Your task to perform on an android device: Turn off the flashlight Image 0: 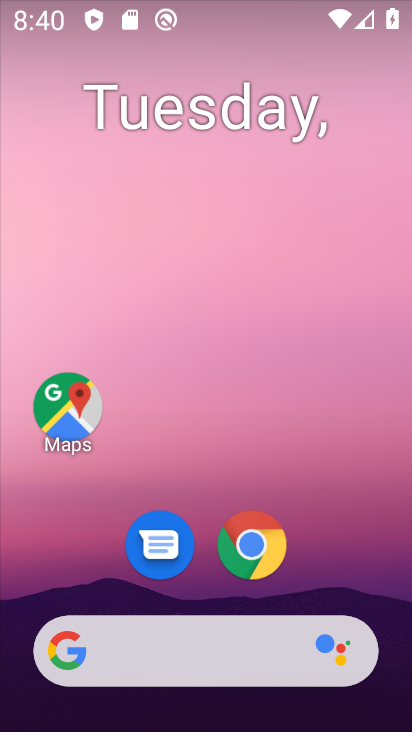
Step 0: drag from (330, 591) to (252, 55)
Your task to perform on an android device: Turn off the flashlight Image 1: 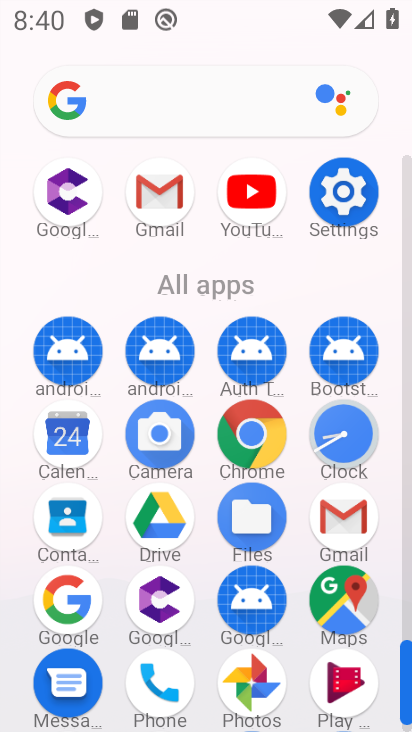
Step 1: click (340, 181)
Your task to perform on an android device: Turn off the flashlight Image 2: 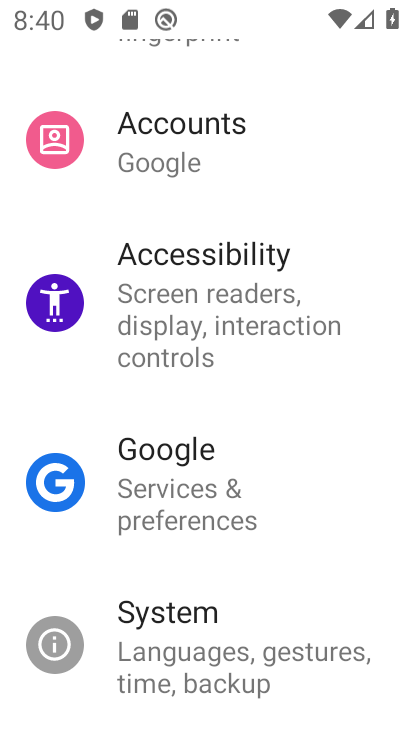
Step 2: task complete